Your task to perform on an android device: Open Google Chrome and click the shortcut for Amazon.com Image 0: 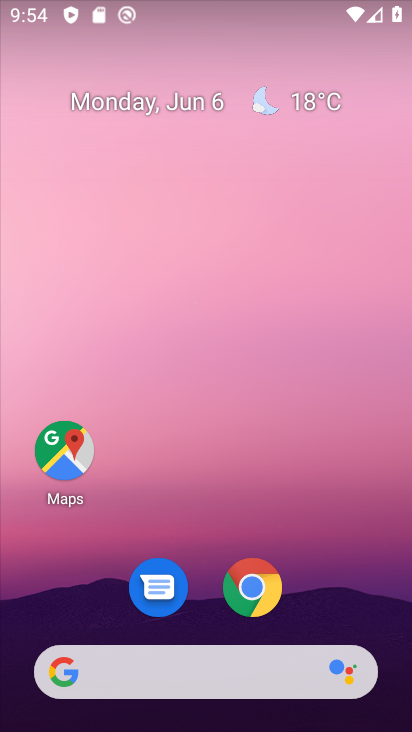
Step 0: drag from (212, 644) to (224, 214)
Your task to perform on an android device: Open Google Chrome and click the shortcut for Amazon.com Image 1: 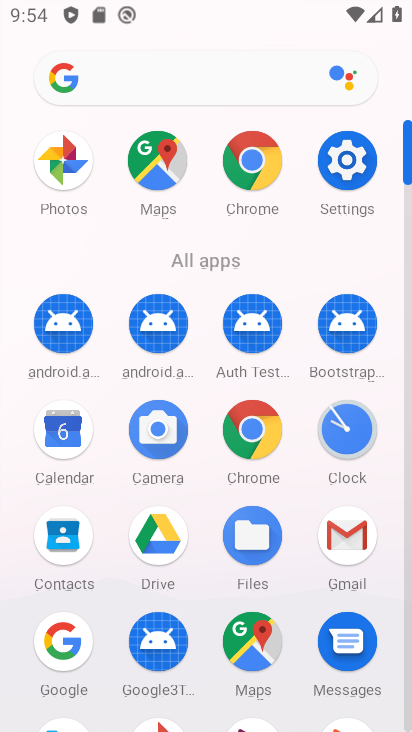
Step 1: click (262, 164)
Your task to perform on an android device: Open Google Chrome and click the shortcut for Amazon.com Image 2: 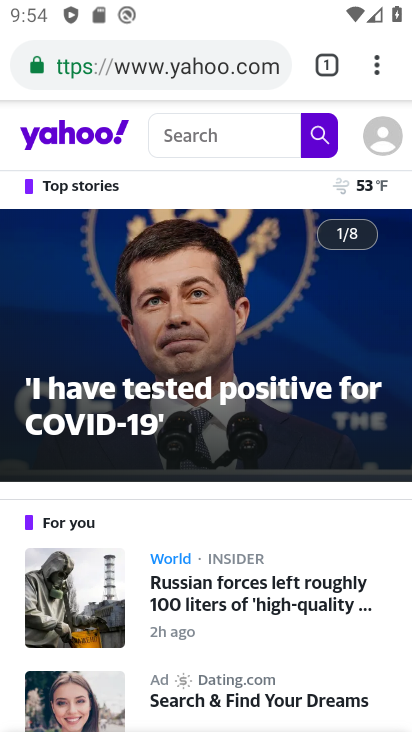
Step 2: click (326, 67)
Your task to perform on an android device: Open Google Chrome and click the shortcut for Amazon.com Image 3: 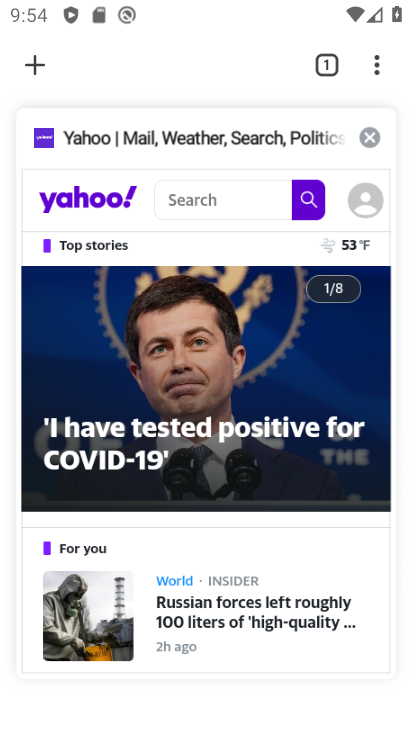
Step 3: click (373, 135)
Your task to perform on an android device: Open Google Chrome and click the shortcut for Amazon.com Image 4: 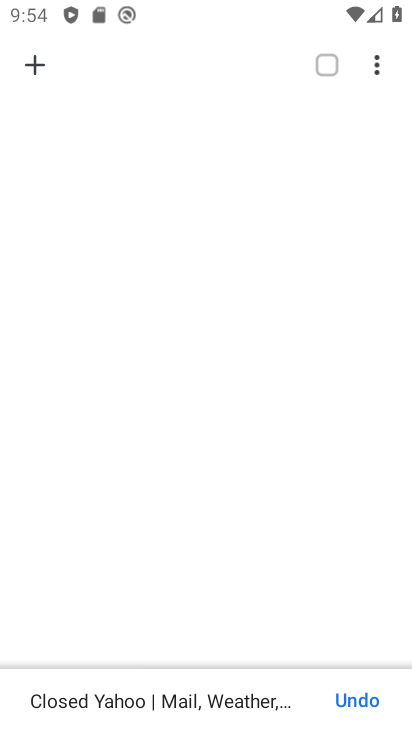
Step 4: click (30, 70)
Your task to perform on an android device: Open Google Chrome and click the shortcut for Amazon.com Image 5: 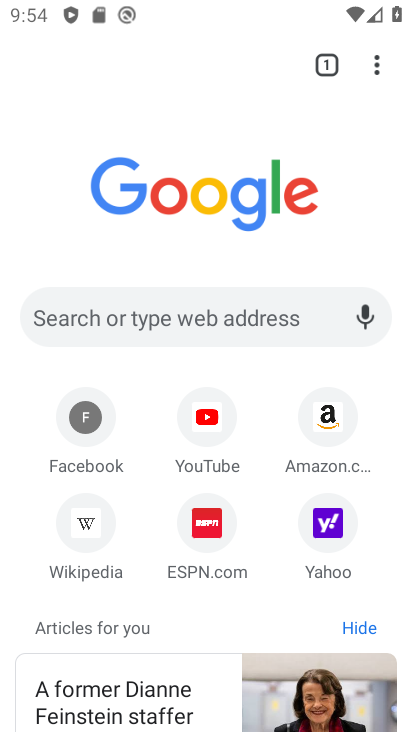
Step 5: click (318, 525)
Your task to perform on an android device: Open Google Chrome and click the shortcut for Amazon.com Image 6: 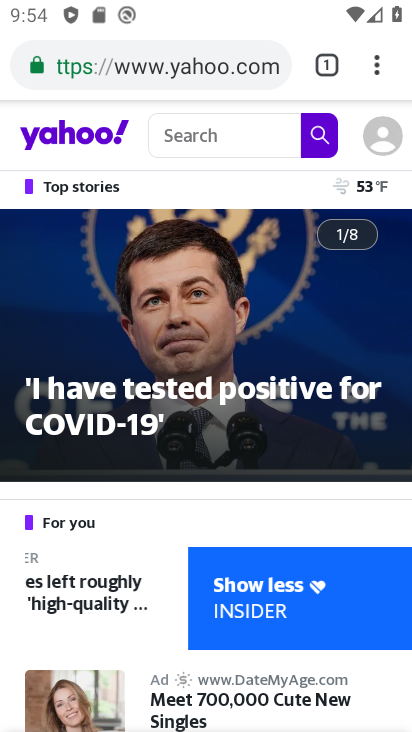
Step 6: task complete